Your task to perform on an android device: Go to ESPN.com Image 0: 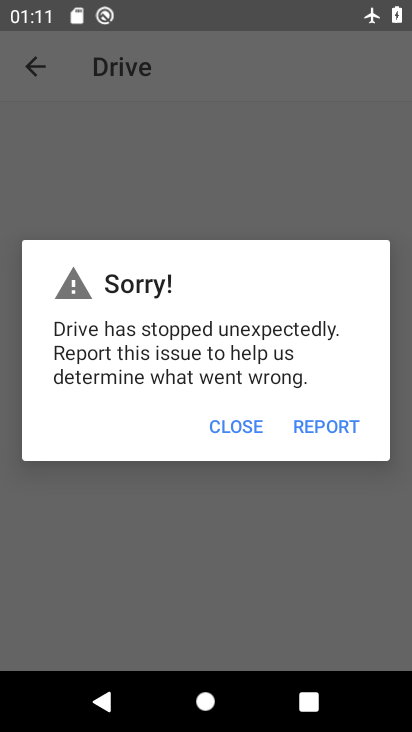
Step 0: press home button
Your task to perform on an android device: Go to ESPN.com Image 1: 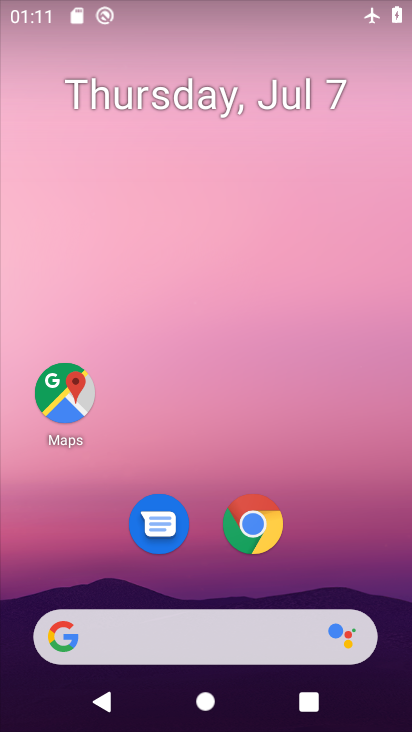
Step 1: click (266, 652)
Your task to perform on an android device: Go to ESPN.com Image 2: 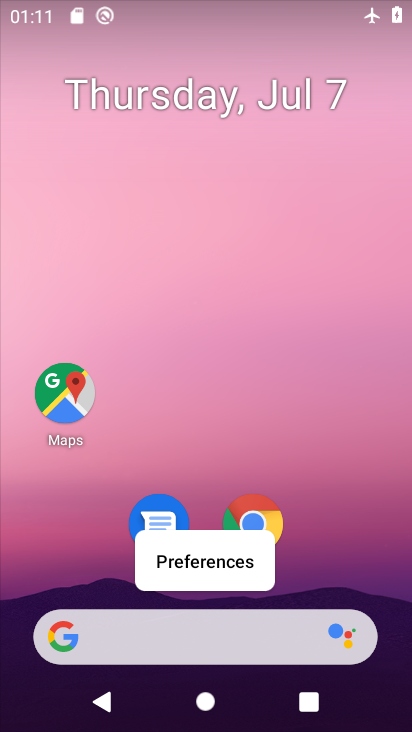
Step 2: click (223, 653)
Your task to perform on an android device: Go to ESPN.com Image 3: 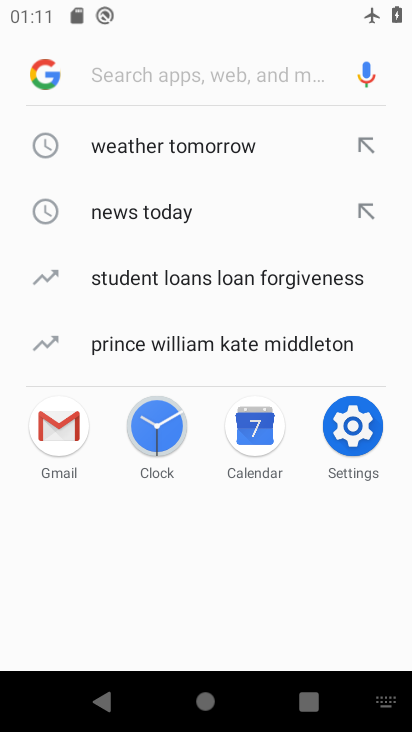
Step 3: type "espn.com"
Your task to perform on an android device: Go to ESPN.com Image 4: 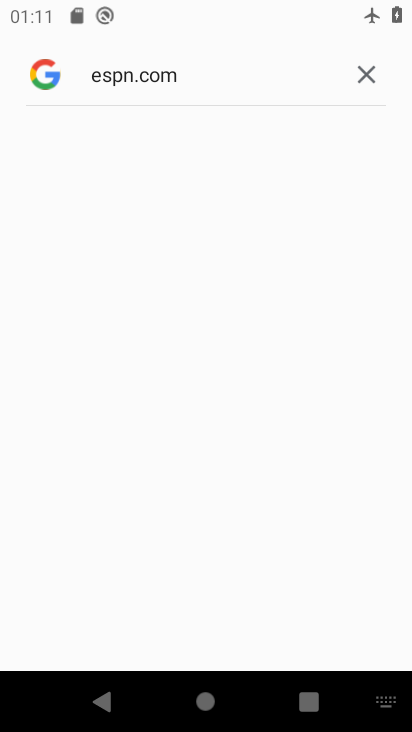
Step 4: task complete